Your task to perform on an android device: Open Google Chrome and click the shortcut for Amazon.com Image 0: 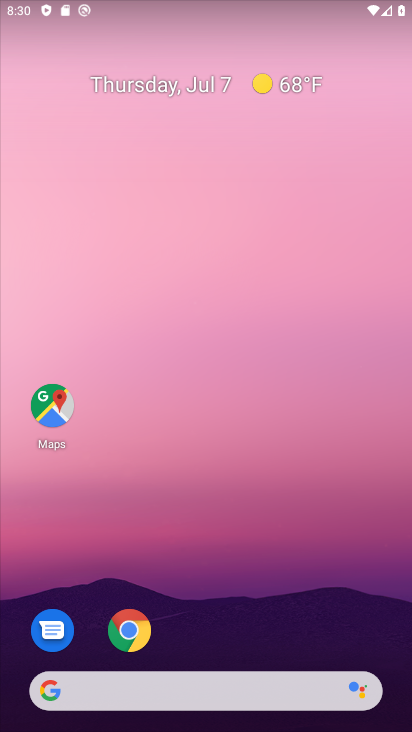
Step 0: click (129, 630)
Your task to perform on an android device: Open Google Chrome and click the shortcut for Amazon.com Image 1: 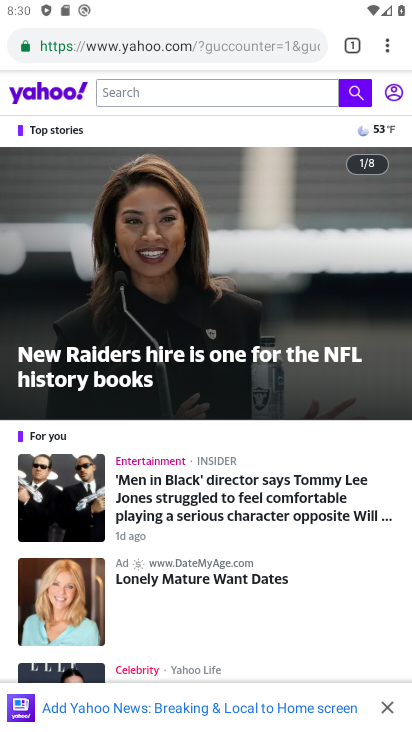
Step 1: click (302, 42)
Your task to perform on an android device: Open Google Chrome and click the shortcut for Amazon.com Image 2: 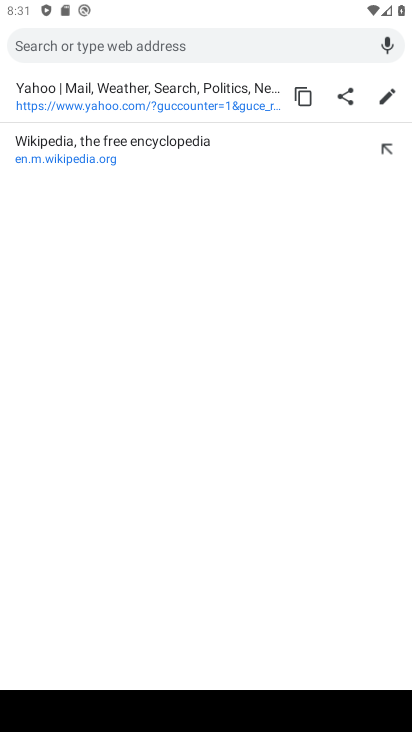
Step 2: type "Amazon.com"
Your task to perform on an android device: Open Google Chrome and click the shortcut for Amazon.com Image 3: 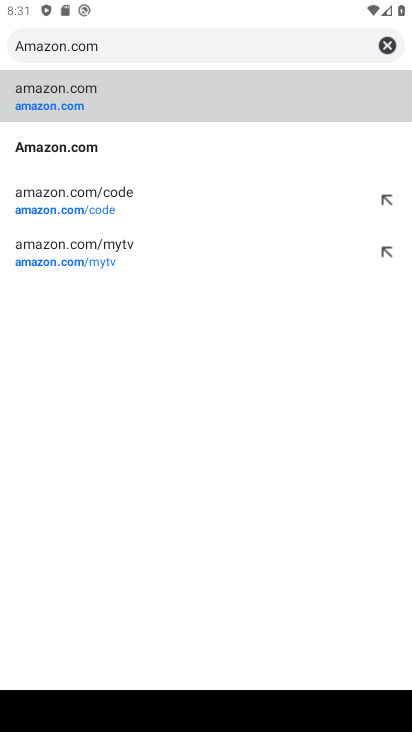
Step 3: click (133, 85)
Your task to perform on an android device: Open Google Chrome and click the shortcut for Amazon.com Image 4: 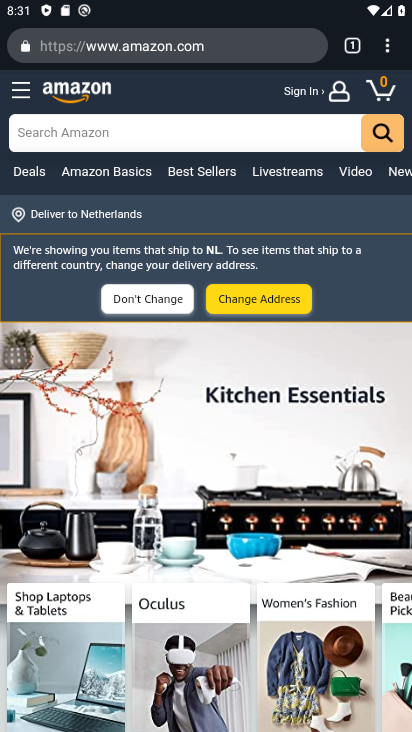
Step 4: click (391, 53)
Your task to perform on an android device: Open Google Chrome and click the shortcut for Amazon.com Image 5: 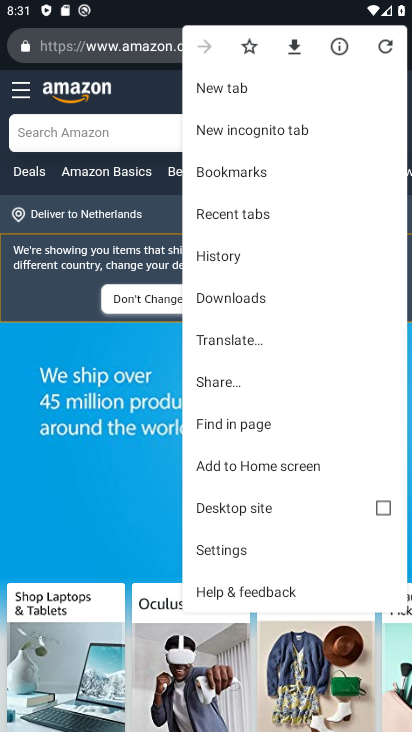
Step 5: click (274, 465)
Your task to perform on an android device: Open Google Chrome and click the shortcut for Amazon.com Image 6: 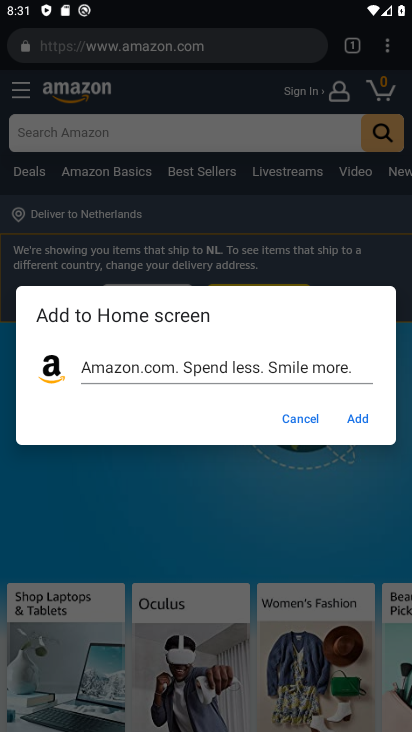
Step 6: click (350, 419)
Your task to perform on an android device: Open Google Chrome and click the shortcut for Amazon.com Image 7: 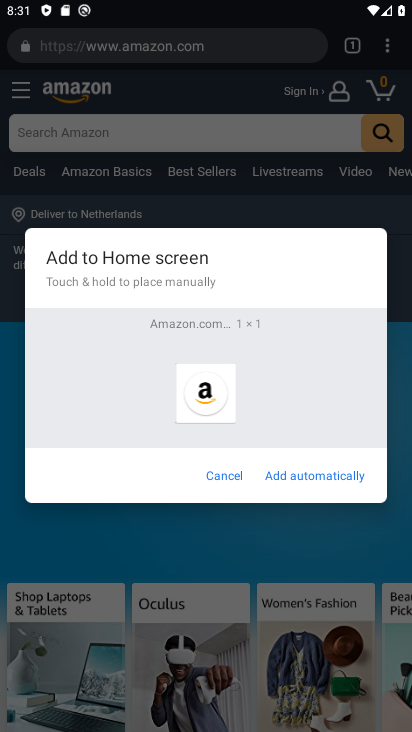
Step 7: click (318, 472)
Your task to perform on an android device: Open Google Chrome and click the shortcut for Amazon.com Image 8: 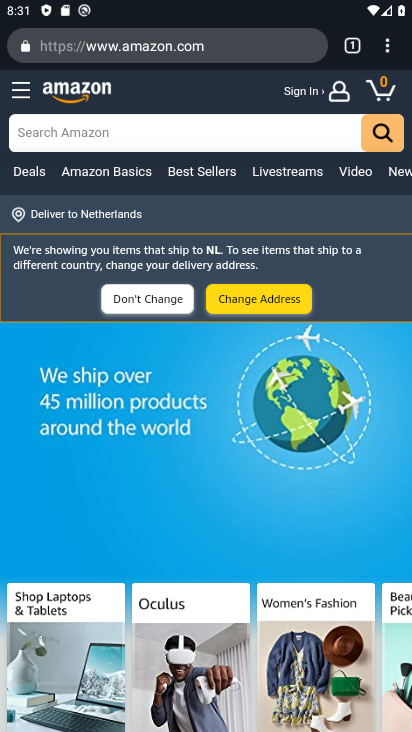
Step 8: task complete